Your task to perform on an android device: add a contact in the contacts app Image 0: 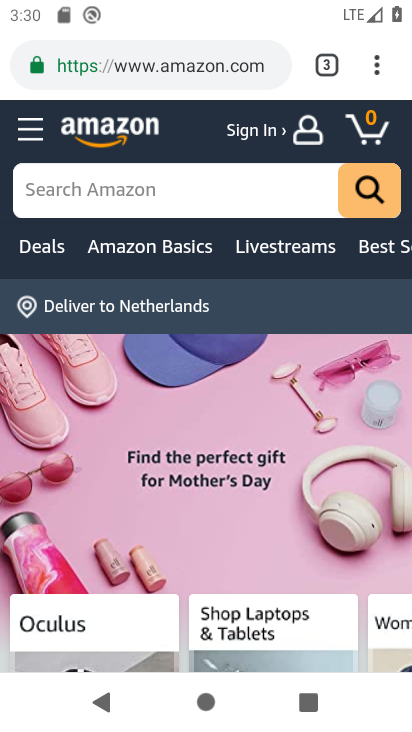
Step 0: press home button
Your task to perform on an android device: add a contact in the contacts app Image 1: 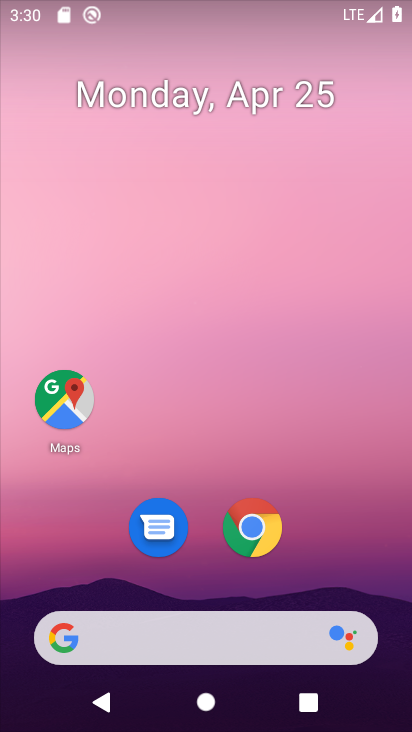
Step 1: drag from (385, 611) to (309, 84)
Your task to perform on an android device: add a contact in the contacts app Image 2: 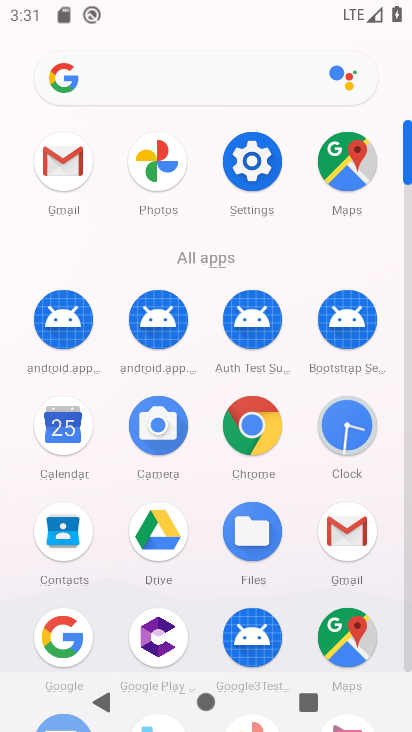
Step 2: click (406, 653)
Your task to perform on an android device: add a contact in the contacts app Image 3: 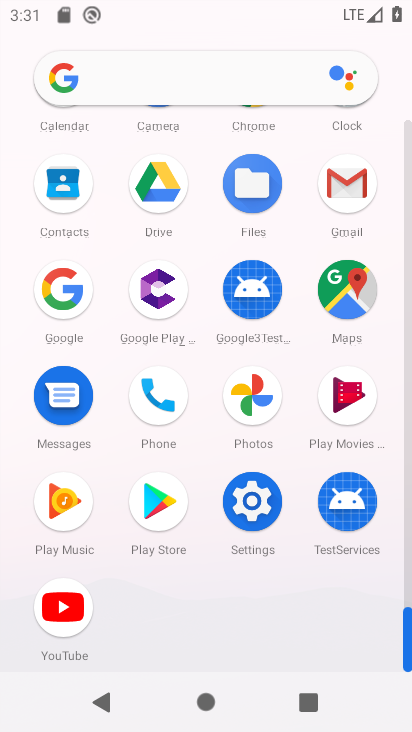
Step 3: click (66, 185)
Your task to perform on an android device: add a contact in the contacts app Image 4: 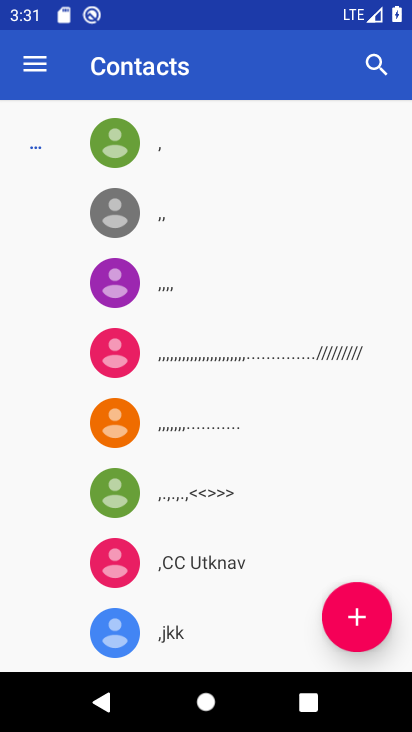
Step 4: click (352, 611)
Your task to perform on an android device: add a contact in the contacts app Image 5: 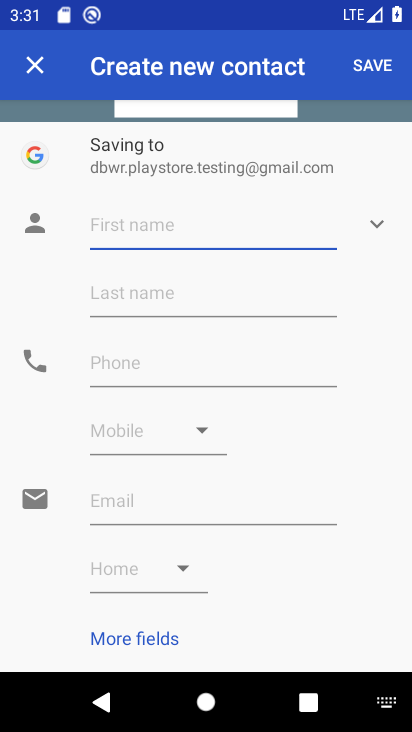
Step 5: type "ddhhkkll;"
Your task to perform on an android device: add a contact in the contacts app Image 6: 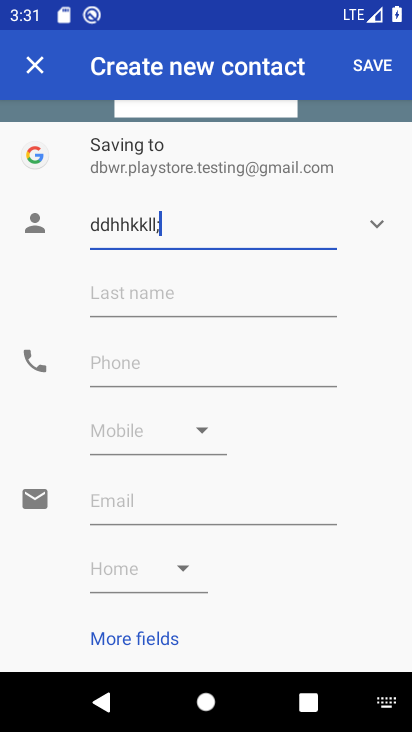
Step 6: click (138, 365)
Your task to perform on an android device: add a contact in the contacts app Image 7: 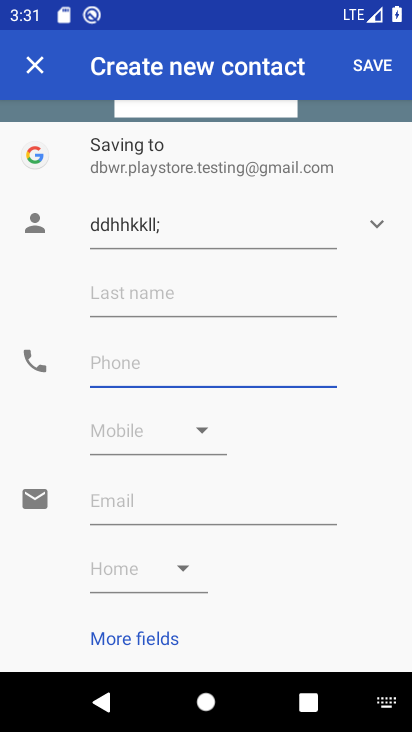
Step 7: type "127890456"
Your task to perform on an android device: add a contact in the contacts app Image 8: 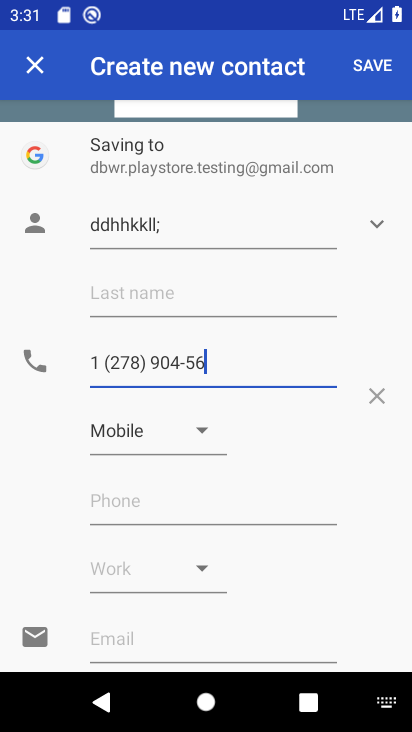
Step 8: click (199, 439)
Your task to perform on an android device: add a contact in the contacts app Image 9: 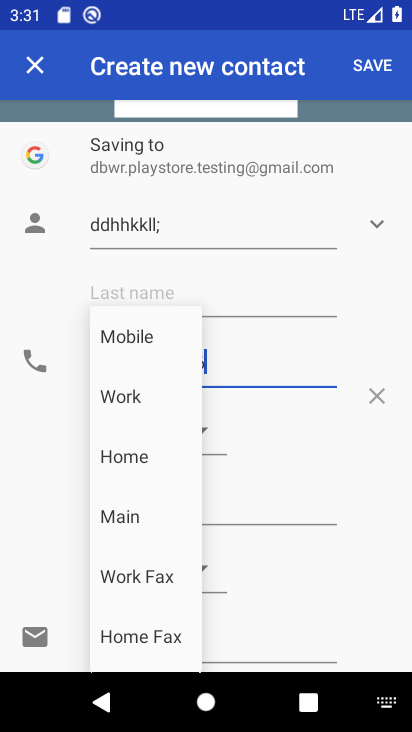
Step 9: click (118, 400)
Your task to perform on an android device: add a contact in the contacts app Image 10: 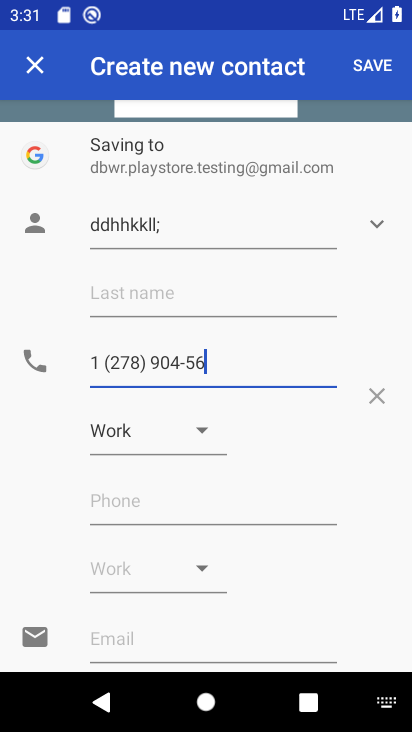
Step 10: click (379, 63)
Your task to perform on an android device: add a contact in the contacts app Image 11: 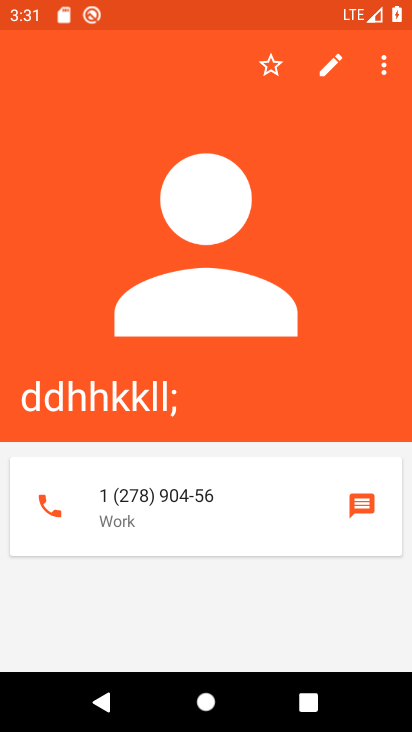
Step 11: task complete